Your task to perform on an android device: Open sound settings Image 0: 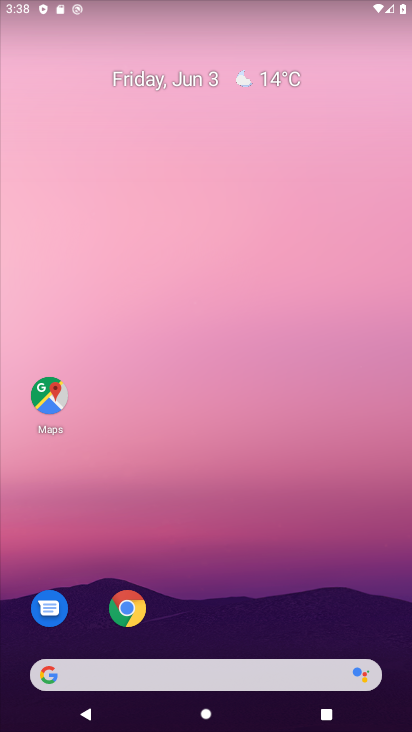
Step 0: drag from (173, 659) to (189, 211)
Your task to perform on an android device: Open sound settings Image 1: 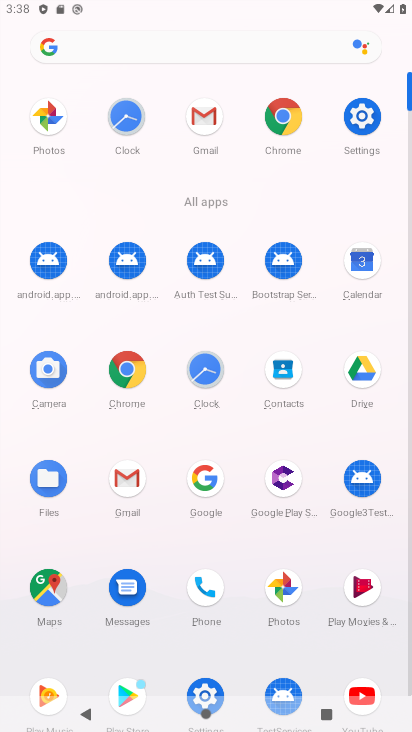
Step 1: click (353, 116)
Your task to perform on an android device: Open sound settings Image 2: 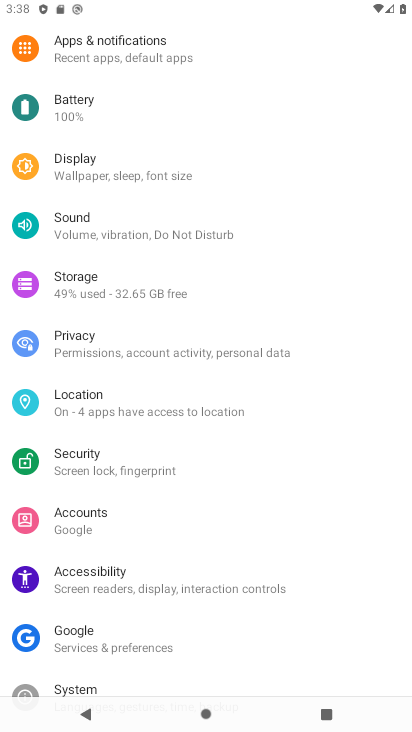
Step 2: click (86, 227)
Your task to perform on an android device: Open sound settings Image 3: 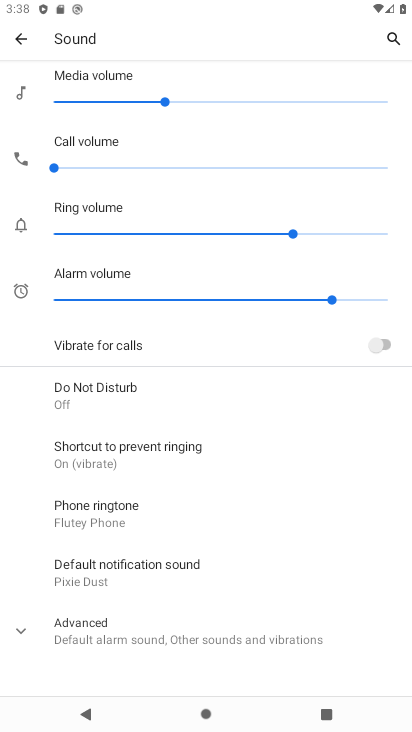
Step 3: click (104, 640)
Your task to perform on an android device: Open sound settings Image 4: 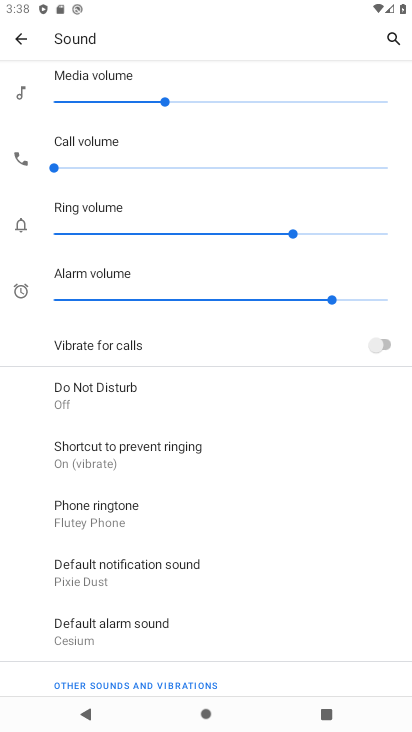
Step 4: task complete